Your task to perform on an android device: Is it going to rain today? Image 0: 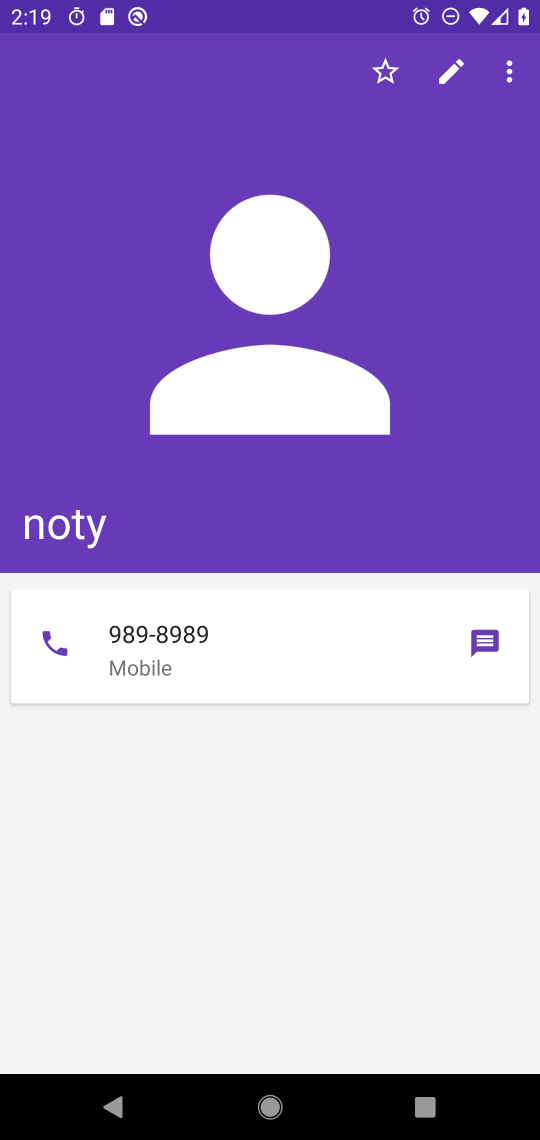
Step 0: press home button
Your task to perform on an android device: Is it going to rain today? Image 1: 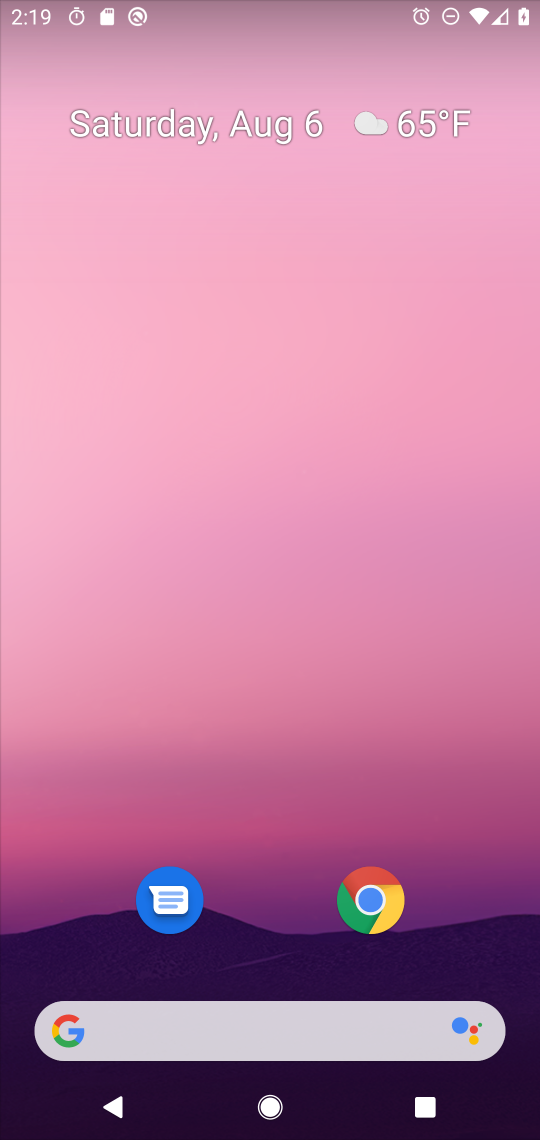
Step 1: drag from (292, 868) to (303, 18)
Your task to perform on an android device: Is it going to rain today? Image 2: 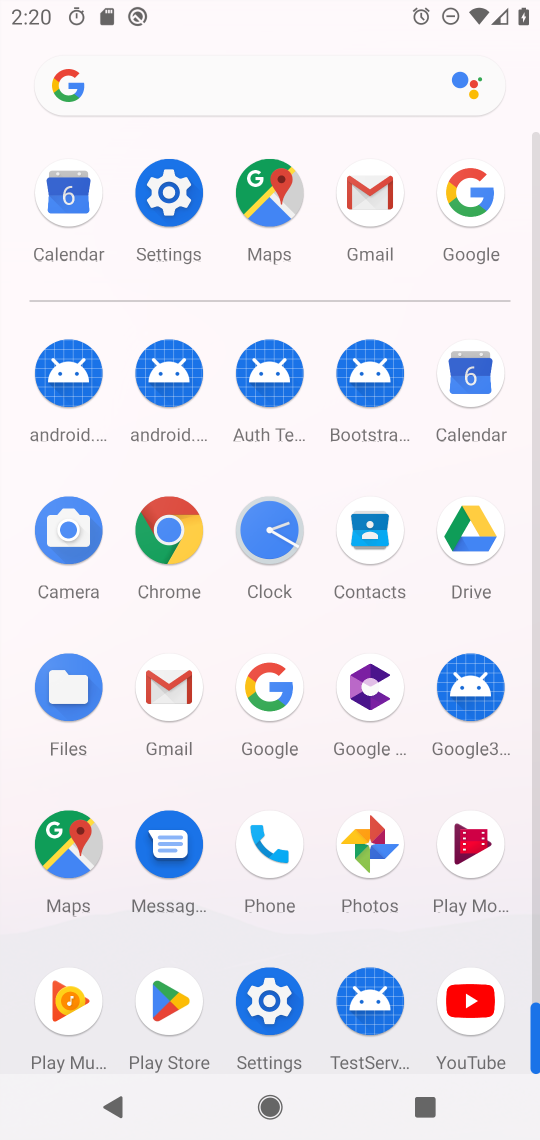
Step 2: click (272, 690)
Your task to perform on an android device: Is it going to rain today? Image 3: 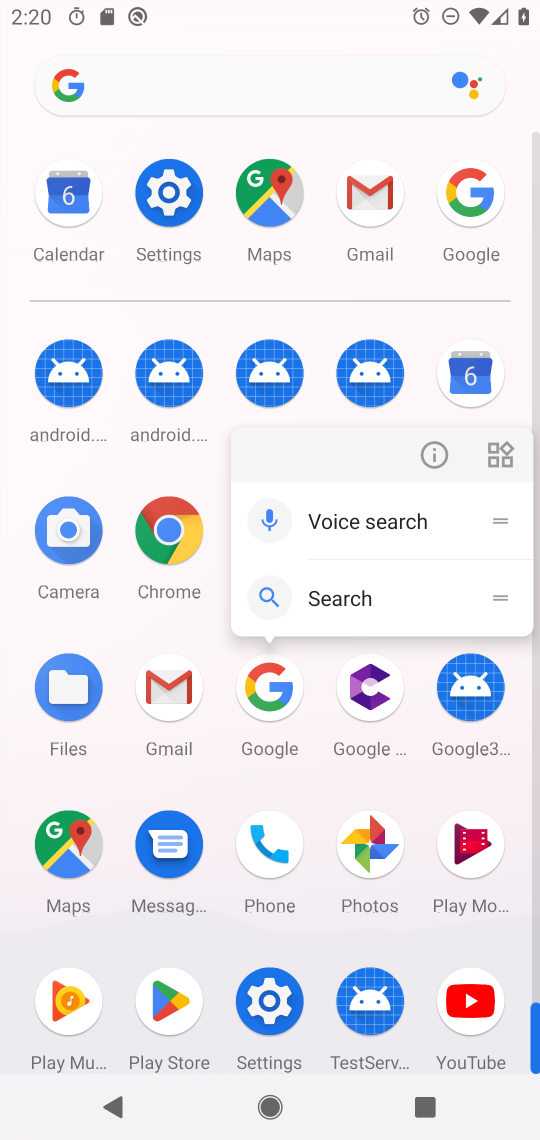
Step 3: click (266, 690)
Your task to perform on an android device: Is it going to rain today? Image 4: 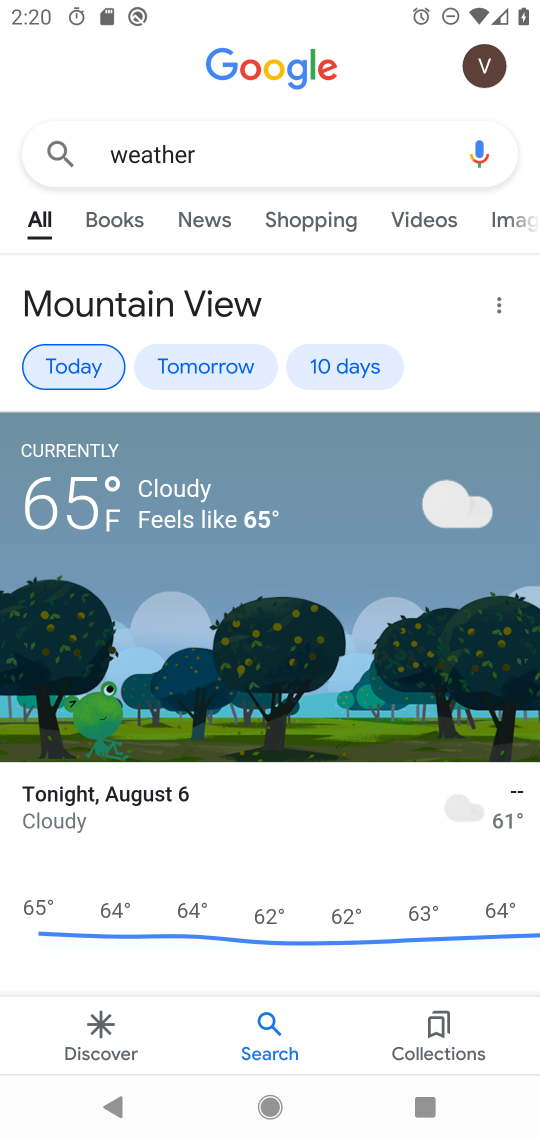
Step 4: click (71, 368)
Your task to perform on an android device: Is it going to rain today? Image 5: 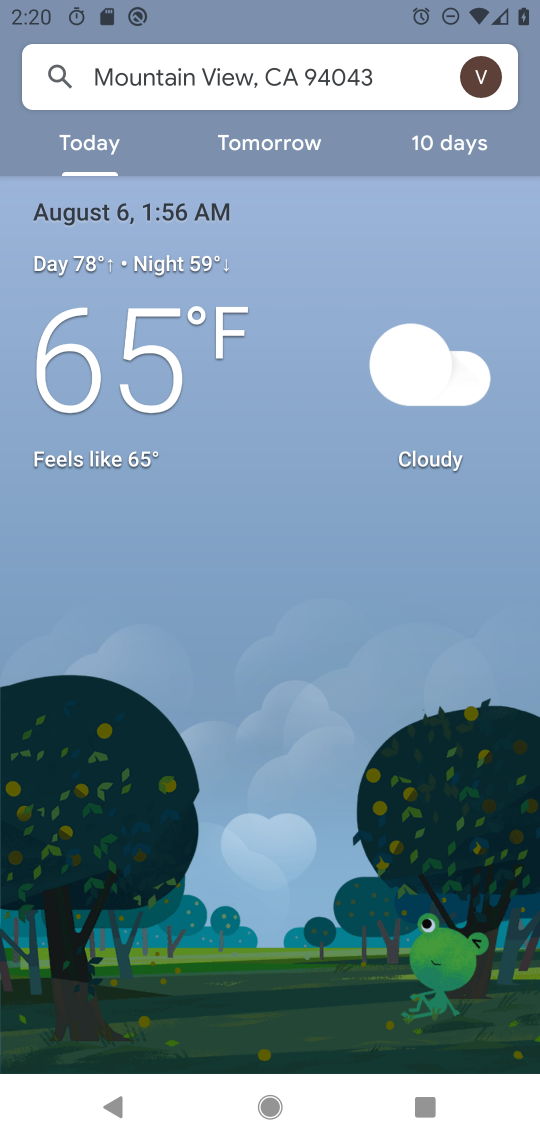
Step 5: task complete